Your task to perform on an android device: turn on bluetooth scan Image 0: 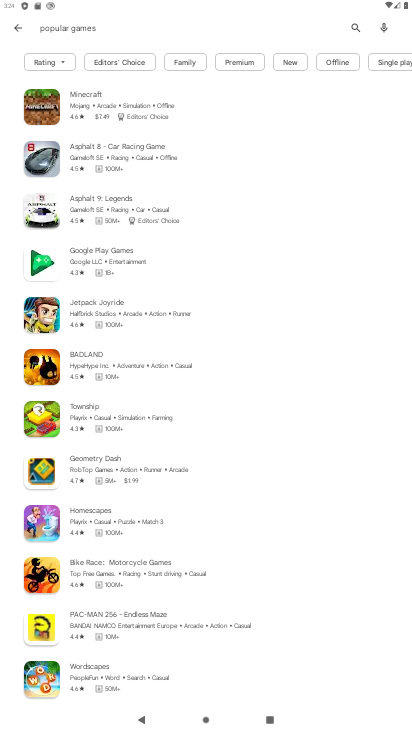
Step 0: press home button
Your task to perform on an android device: turn on bluetooth scan Image 1: 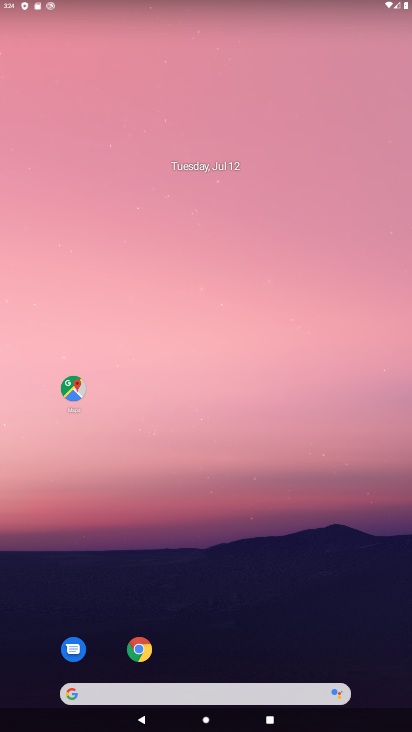
Step 1: drag from (230, 614) to (251, 168)
Your task to perform on an android device: turn on bluetooth scan Image 2: 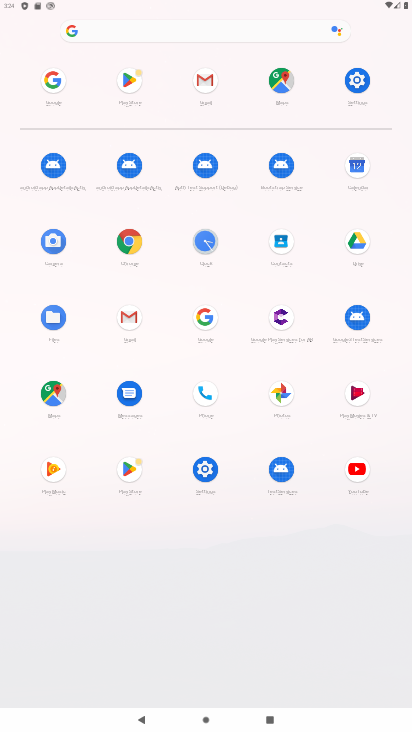
Step 2: click (355, 82)
Your task to perform on an android device: turn on bluetooth scan Image 3: 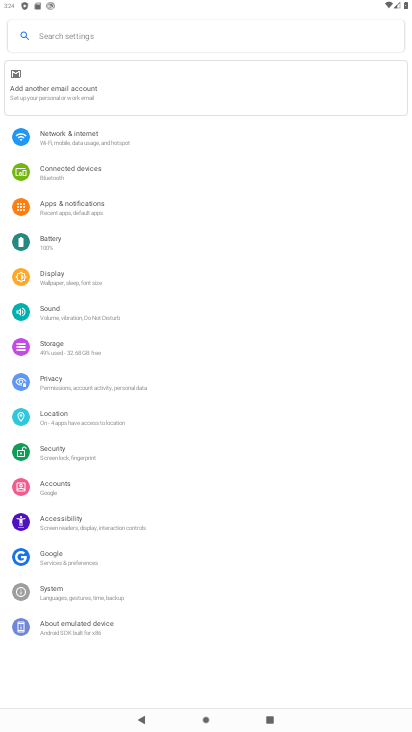
Step 3: click (55, 414)
Your task to perform on an android device: turn on bluetooth scan Image 4: 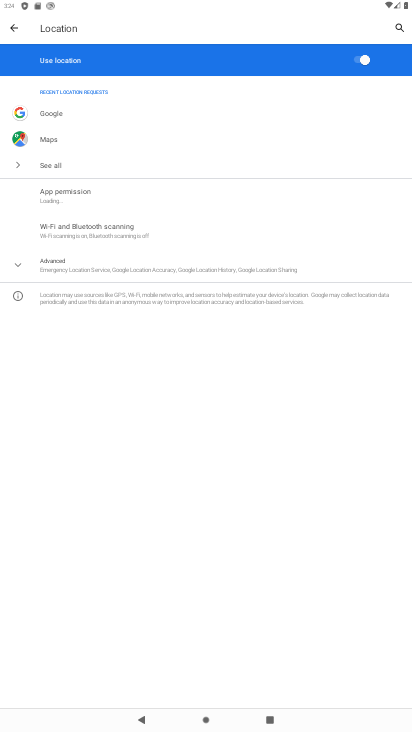
Step 4: click (65, 237)
Your task to perform on an android device: turn on bluetooth scan Image 5: 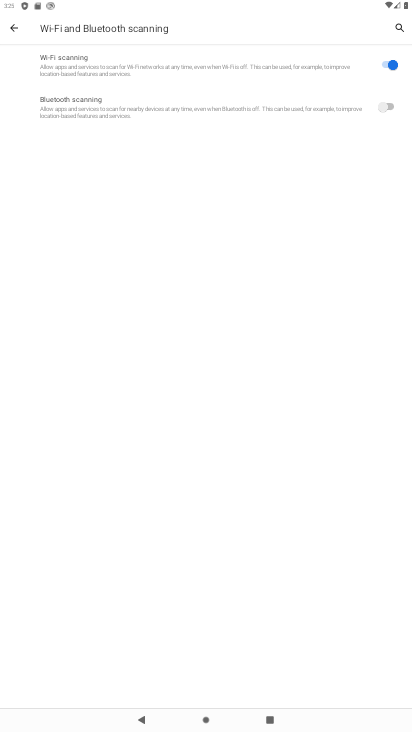
Step 5: click (388, 107)
Your task to perform on an android device: turn on bluetooth scan Image 6: 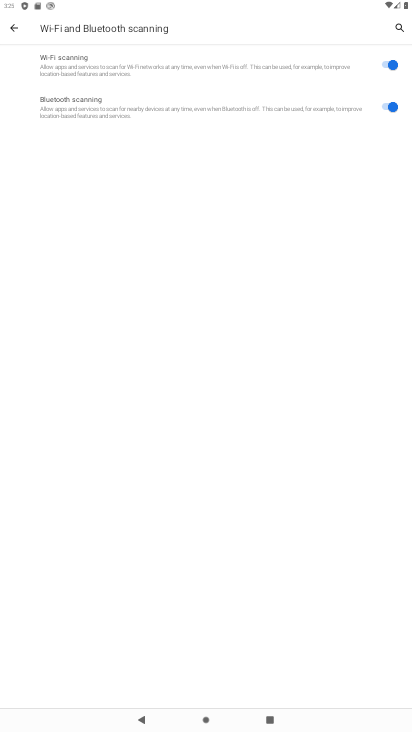
Step 6: task complete